Your task to perform on an android device: turn on data saver in the chrome app Image 0: 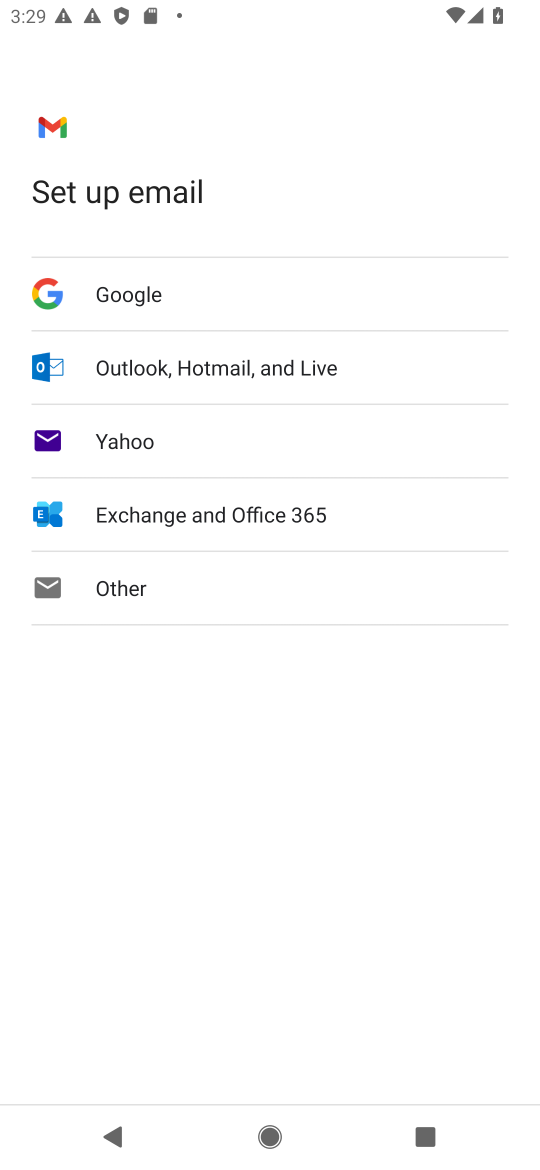
Step 0: press home button
Your task to perform on an android device: turn on data saver in the chrome app Image 1: 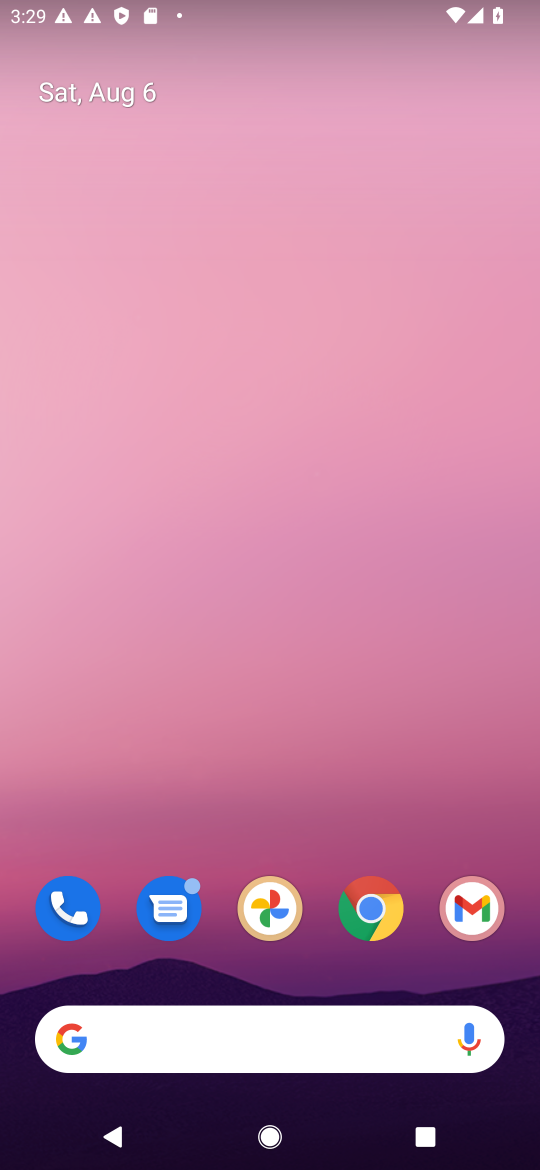
Step 1: click (383, 896)
Your task to perform on an android device: turn on data saver in the chrome app Image 2: 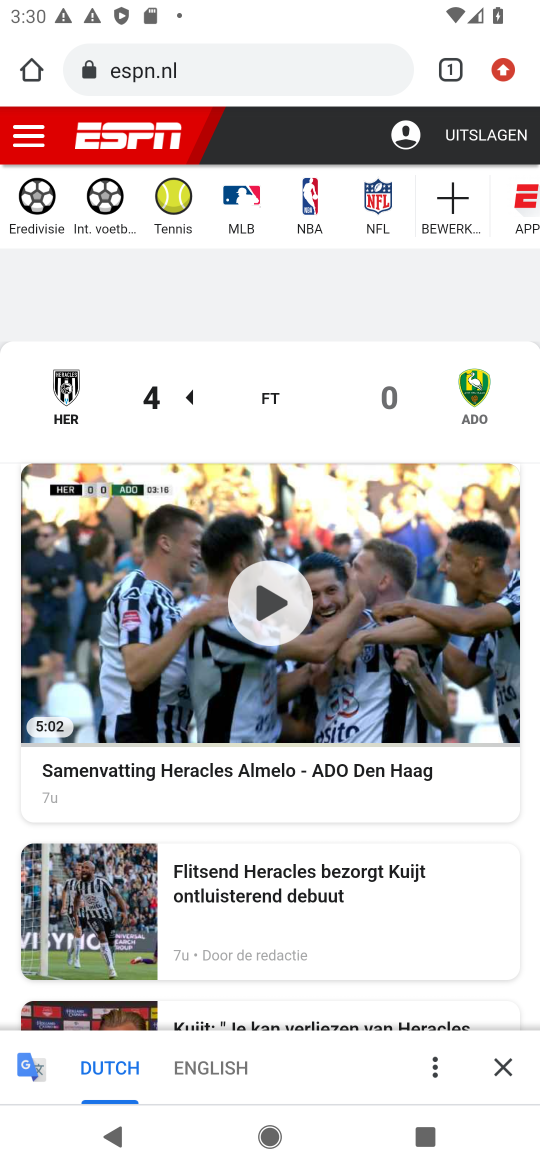
Step 2: click (492, 65)
Your task to perform on an android device: turn on data saver in the chrome app Image 3: 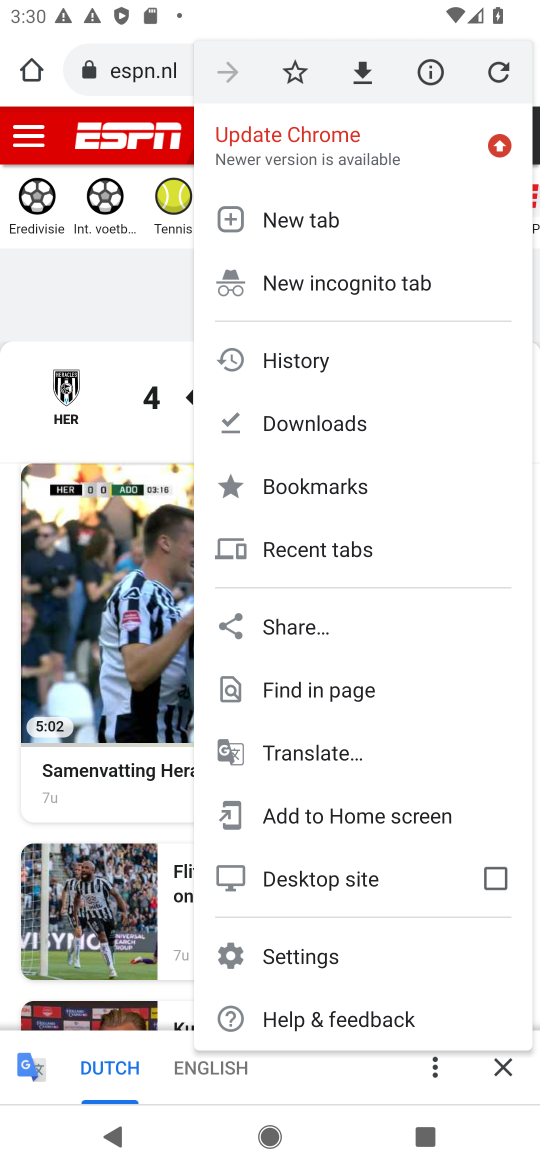
Step 3: click (293, 968)
Your task to perform on an android device: turn on data saver in the chrome app Image 4: 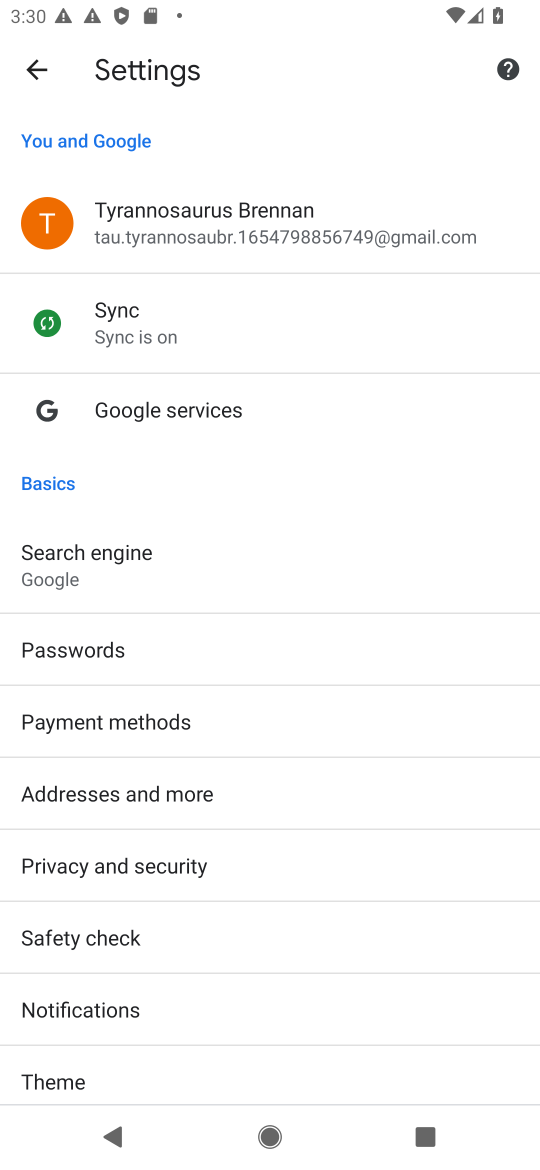
Step 4: drag from (92, 1064) to (110, 750)
Your task to perform on an android device: turn on data saver in the chrome app Image 5: 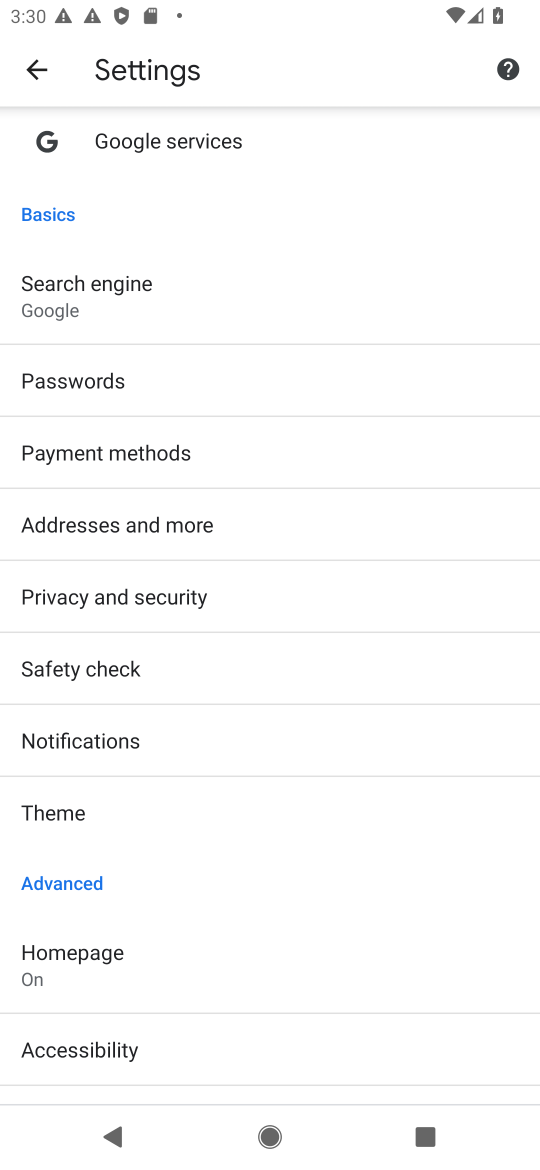
Step 5: drag from (129, 981) to (176, 681)
Your task to perform on an android device: turn on data saver in the chrome app Image 6: 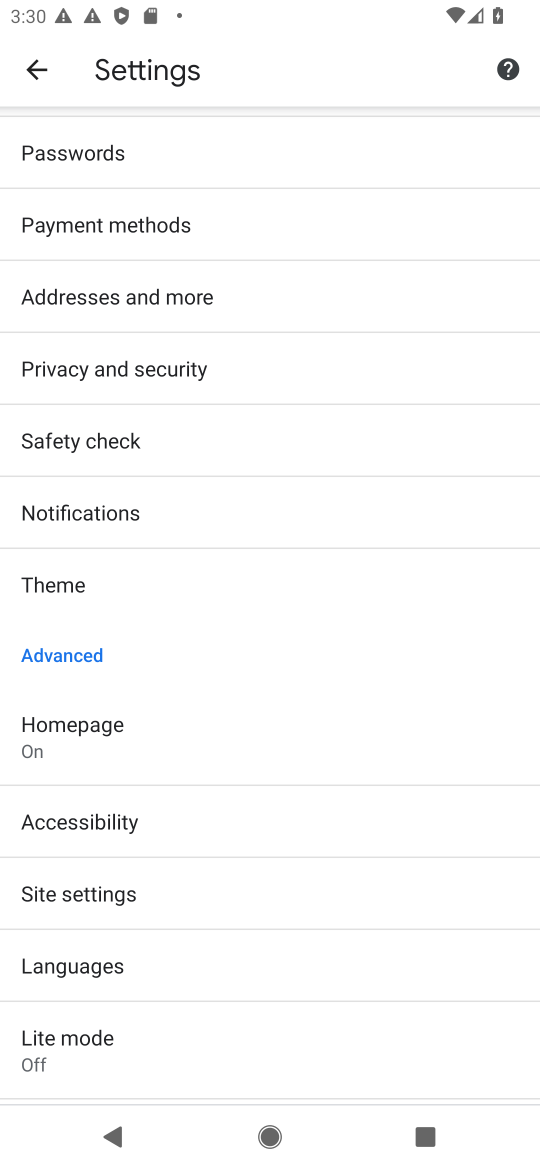
Step 6: click (53, 1040)
Your task to perform on an android device: turn on data saver in the chrome app Image 7: 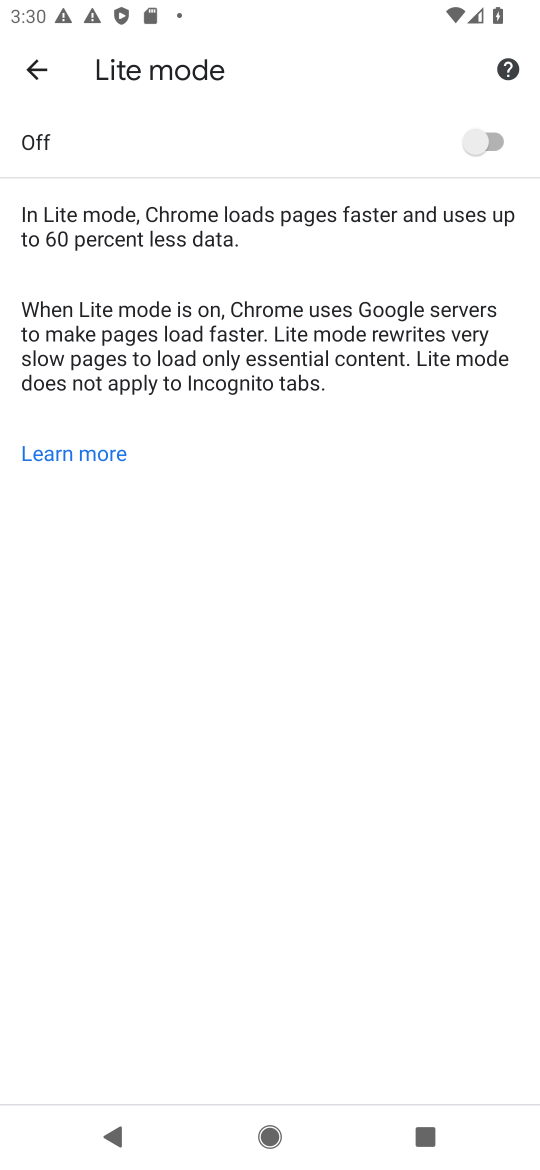
Step 7: click (499, 145)
Your task to perform on an android device: turn on data saver in the chrome app Image 8: 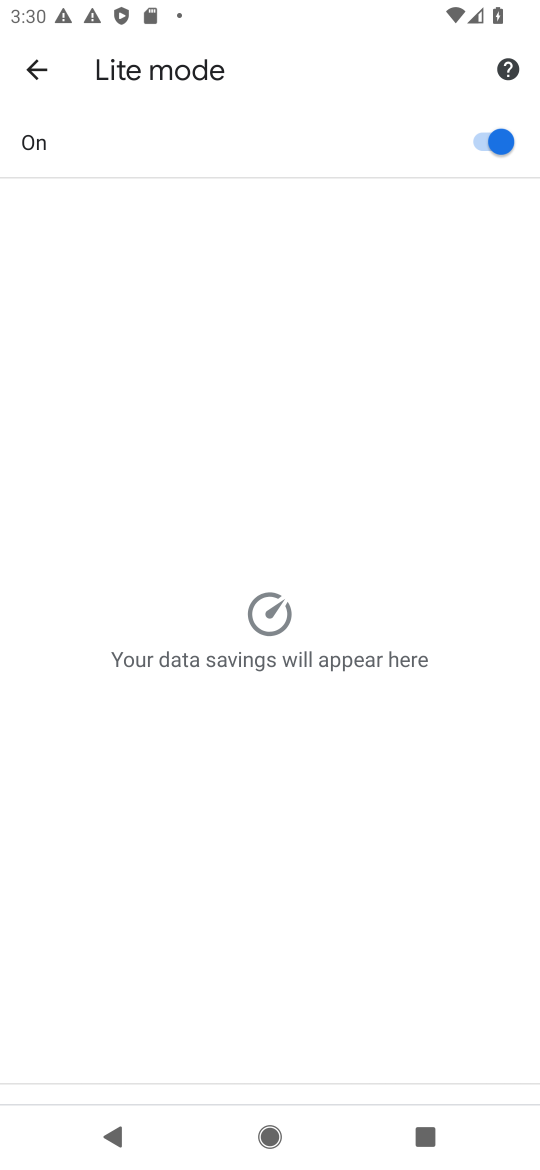
Step 8: task complete